Your task to perform on an android device: find which apps use the phone's location Image 0: 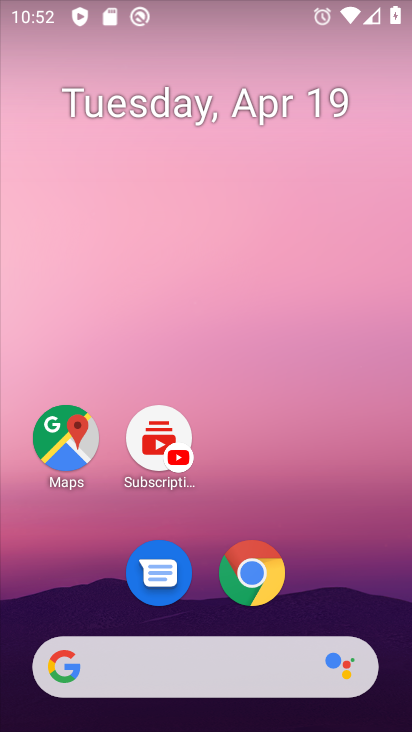
Step 0: press home button
Your task to perform on an android device: find which apps use the phone's location Image 1: 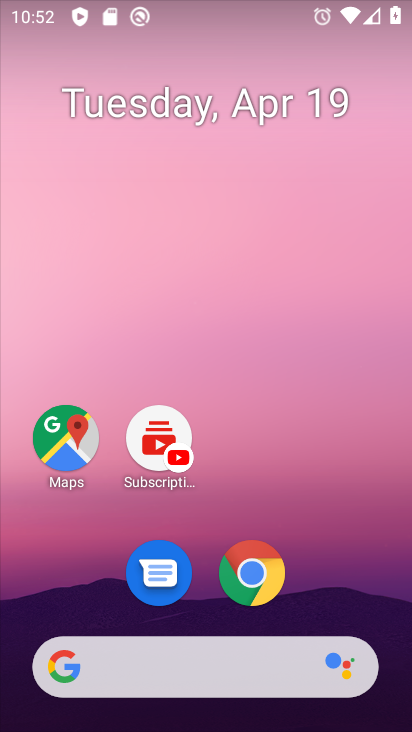
Step 1: drag from (324, 594) to (245, 60)
Your task to perform on an android device: find which apps use the phone's location Image 2: 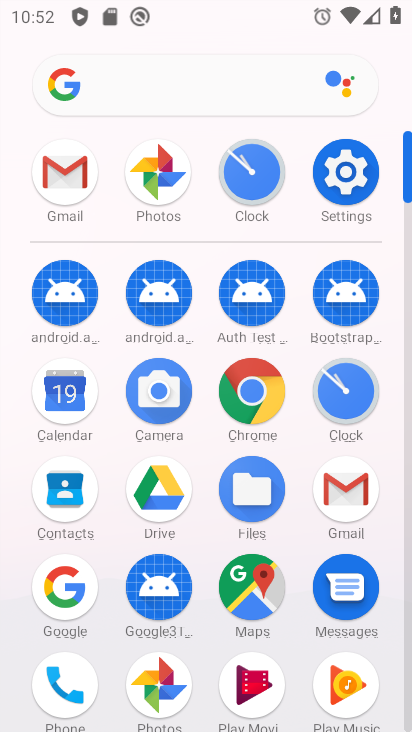
Step 2: click (355, 156)
Your task to perform on an android device: find which apps use the phone's location Image 3: 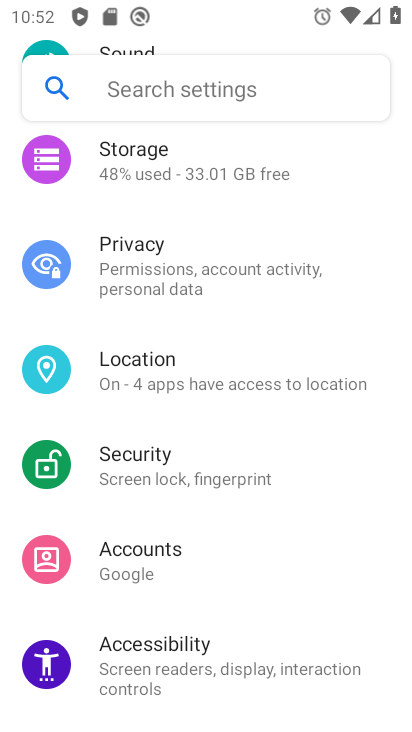
Step 3: click (185, 378)
Your task to perform on an android device: find which apps use the phone's location Image 4: 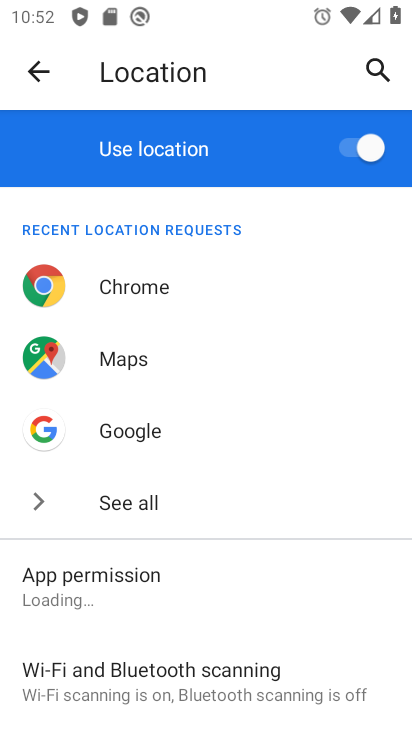
Step 4: drag from (134, 634) to (156, 325)
Your task to perform on an android device: find which apps use the phone's location Image 5: 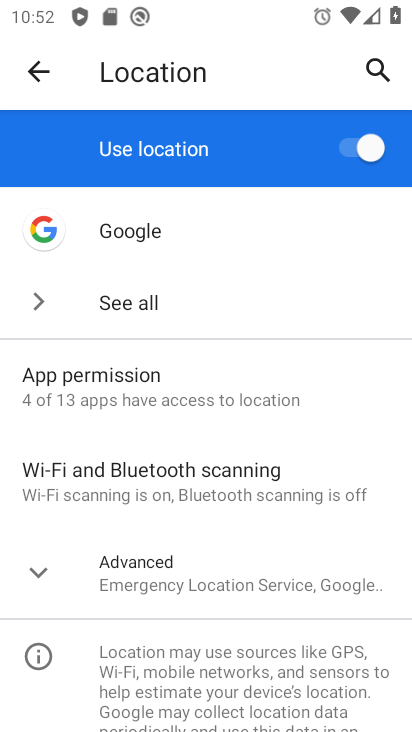
Step 5: click (168, 384)
Your task to perform on an android device: find which apps use the phone's location Image 6: 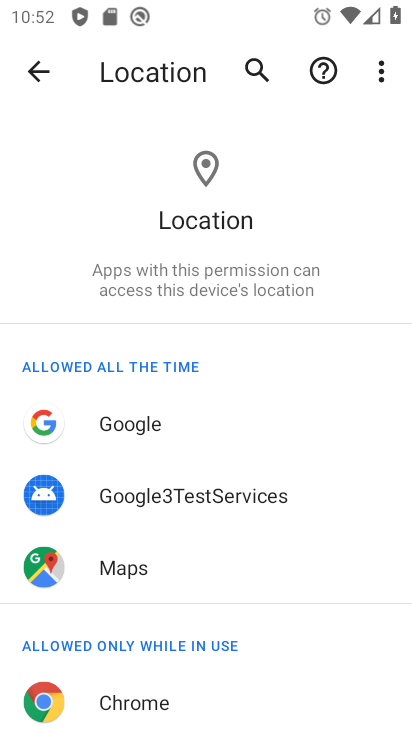
Step 6: task complete